Your task to perform on an android device: Open ESPN.com Image 0: 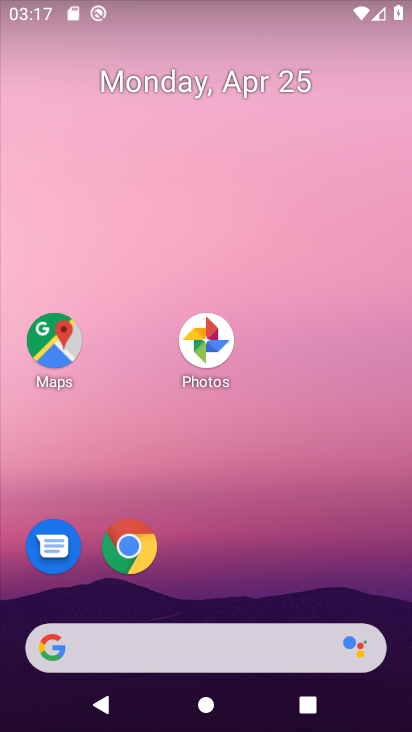
Step 0: drag from (301, 518) to (342, 203)
Your task to perform on an android device: Open ESPN.com Image 1: 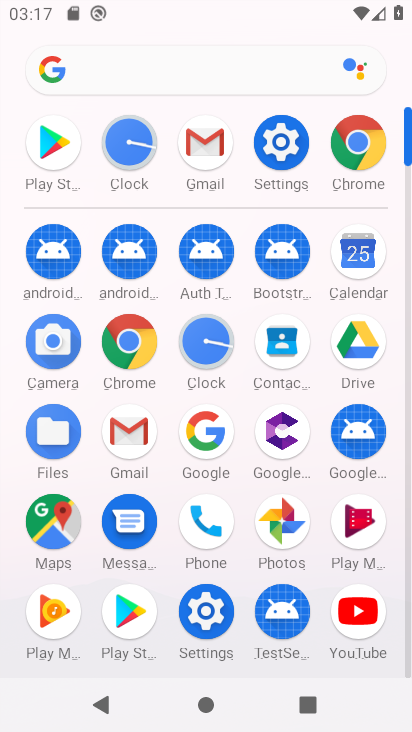
Step 1: click (363, 134)
Your task to perform on an android device: Open ESPN.com Image 2: 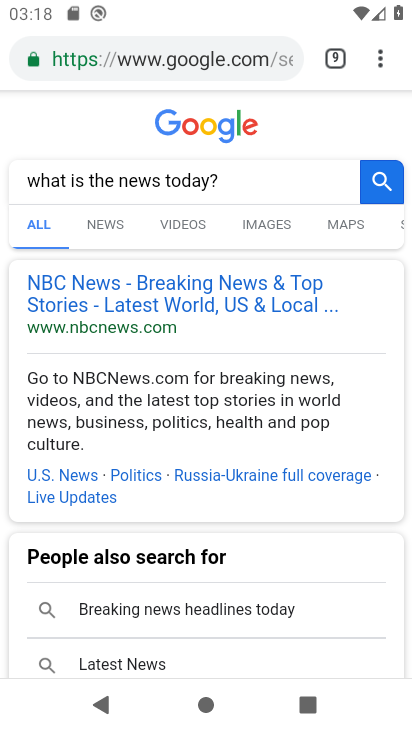
Step 2: click (364, 56)
Your task to perform on an android device: Open ESPN.com Image 3: 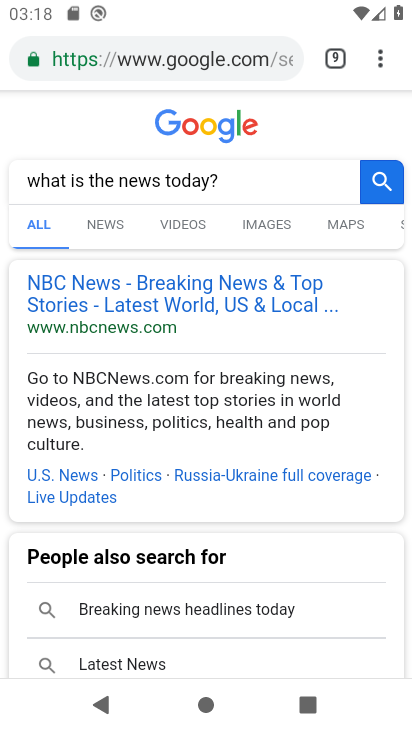
Step 3: click (372, 60)
Your task to perform on an android device: Open ESPN.com Image 4: 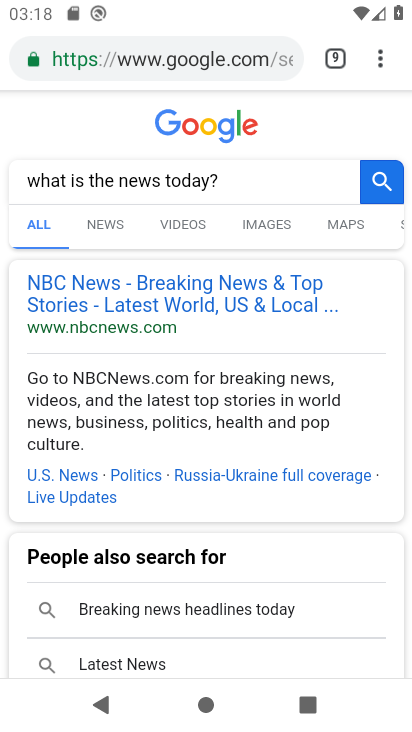
Step 4: click (371, 57)
Your task to perform on an android device: Open ESPN.com Image 5: 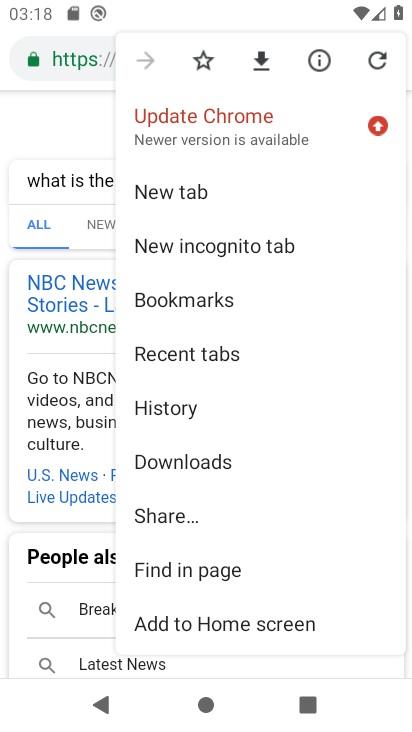
Step 5: click (218, 197)
Your task to perform on an android device: Open ESPN.com Image 6: 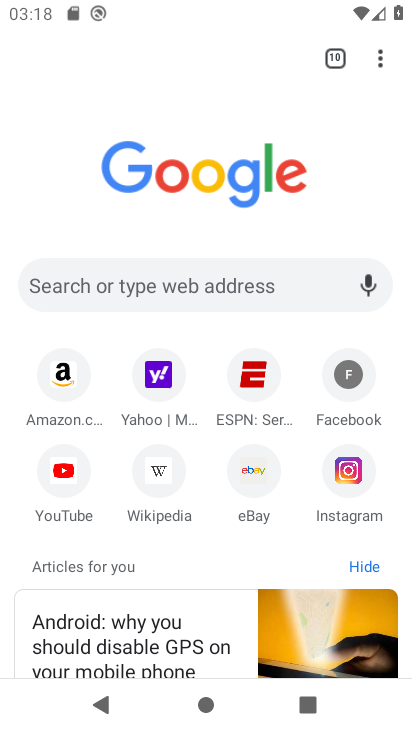
Step 6: click (236, 380)
Your task to perform on an android device: Open ESPN.com Image 7: 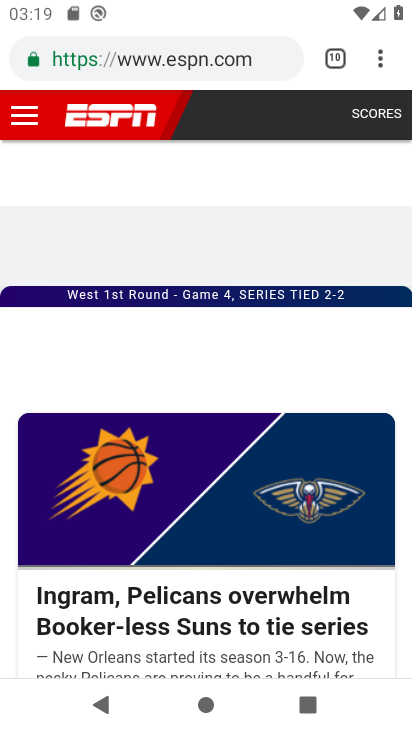
Step 7: task complete